Your task to perform on an android device: What is the recent news? Image 0: 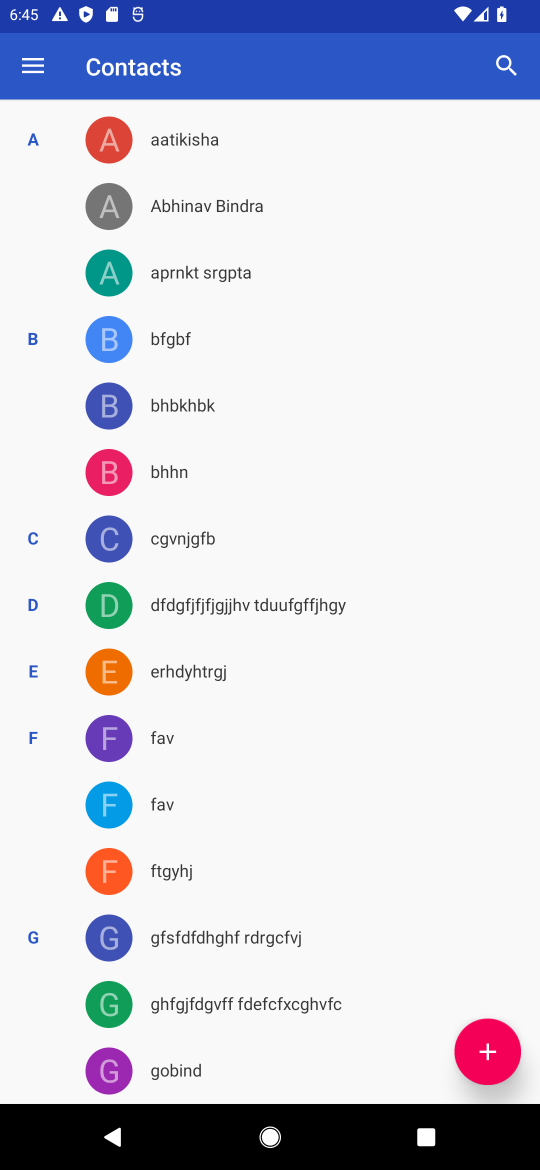
Step 0: press home button
Your task to perform on an android device: What is the recent news? Image 1: 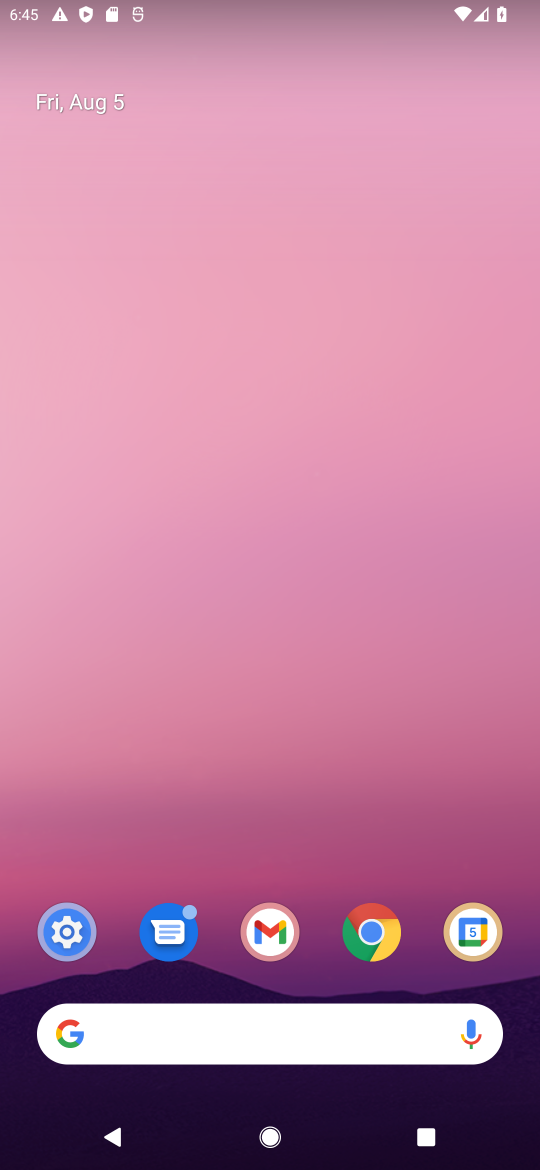
Step 1: click (372, 925)
Your task to perform on an android device: What is the recent news? Image 2: 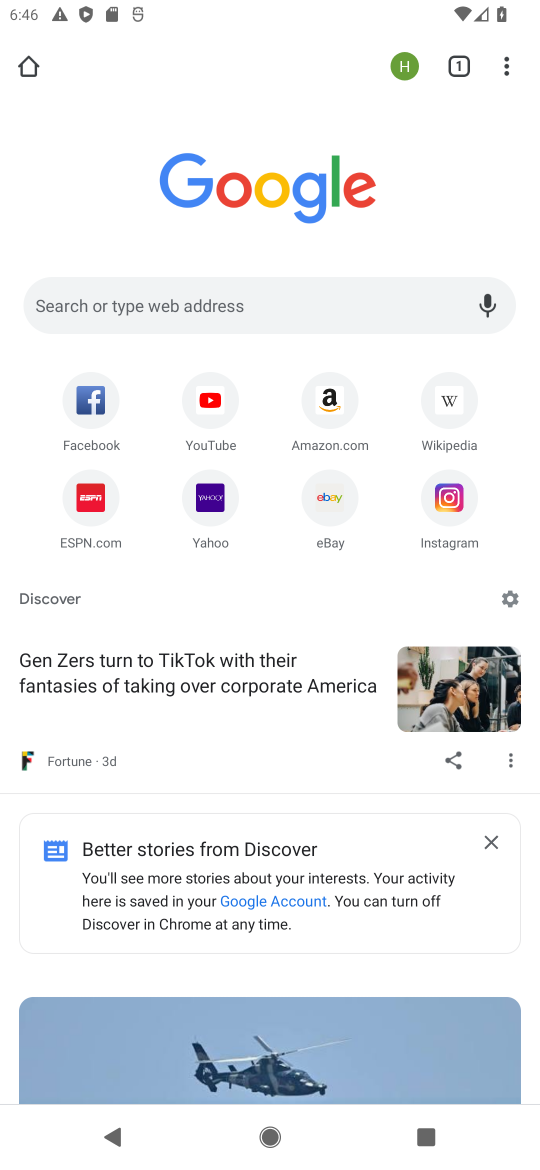
Step 2: click (294, 299)
Your task to perform on an android device: What is the recent news? Image 3: 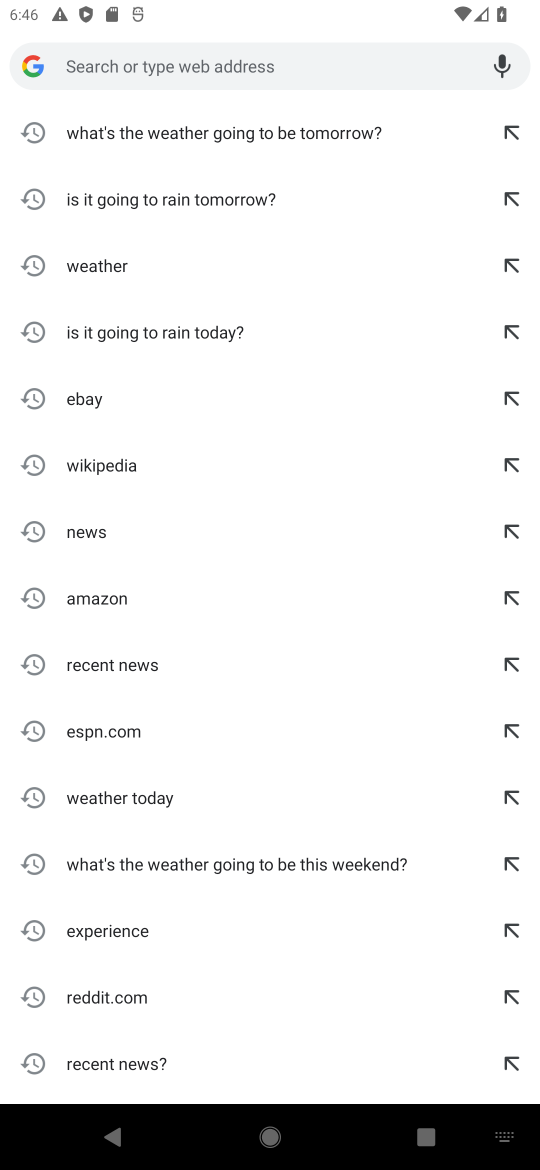
Step 3: type "recent news"
Your task to perform on an android device: What is the recent news? Image 4: 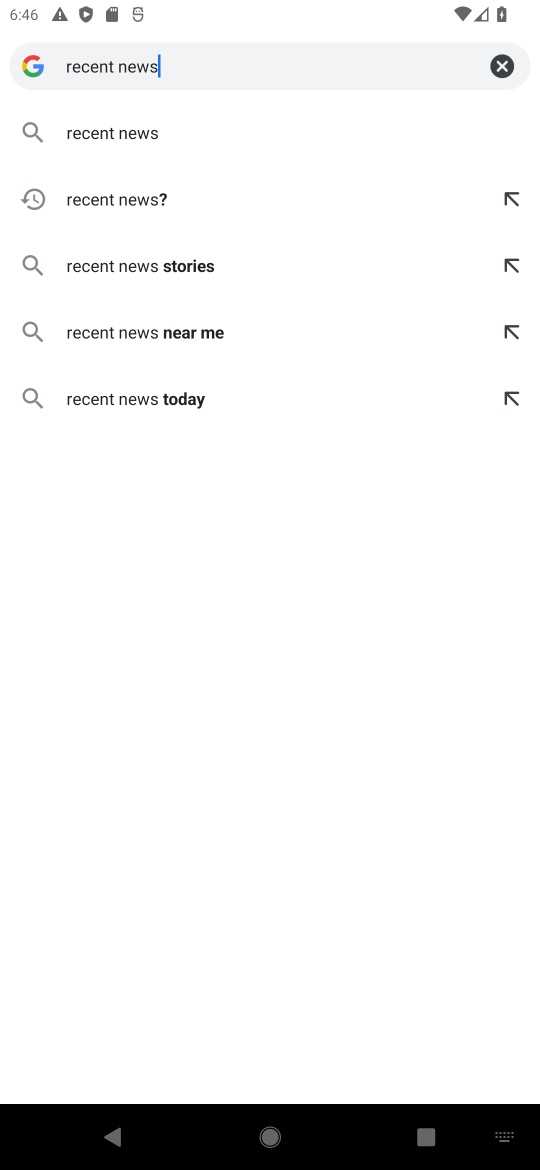
Step 4: click (154, 203)
Your task to perform on an android device: What is the recent news? Image 5: 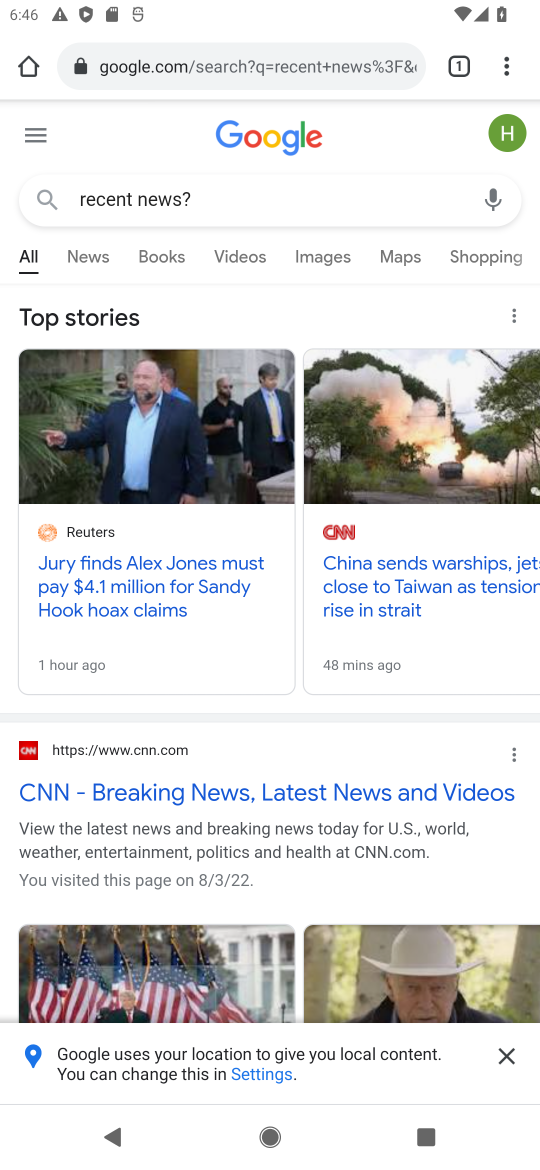
Step 5: click (230, 584)
Your task to perform on an android device: What is the recent news? Image 6: 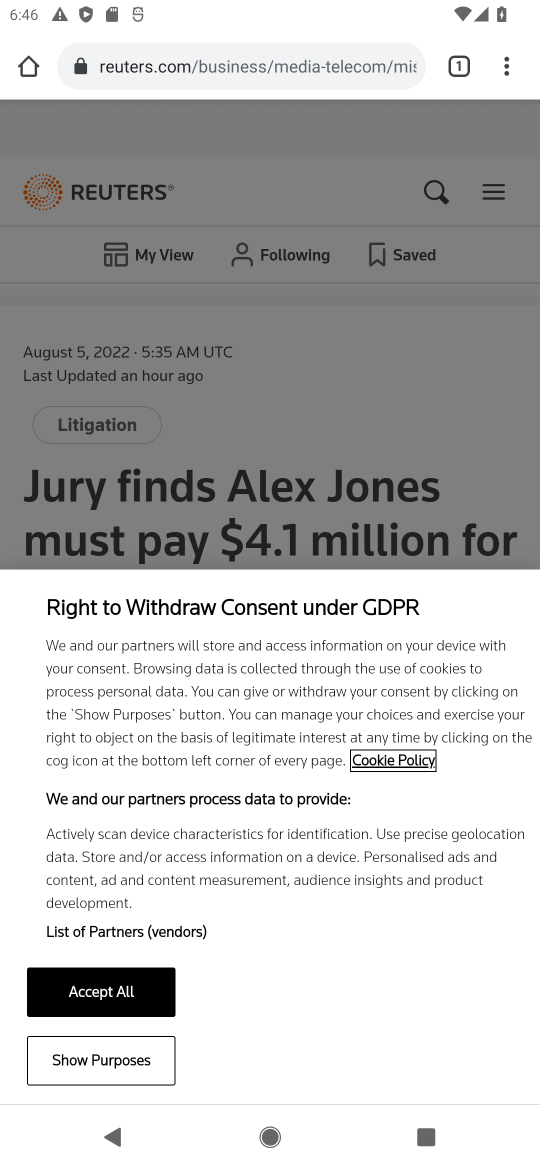
Step 6: task complete